Your task to perform on an android device: turn on showing notifications on the lock screen Image 0: 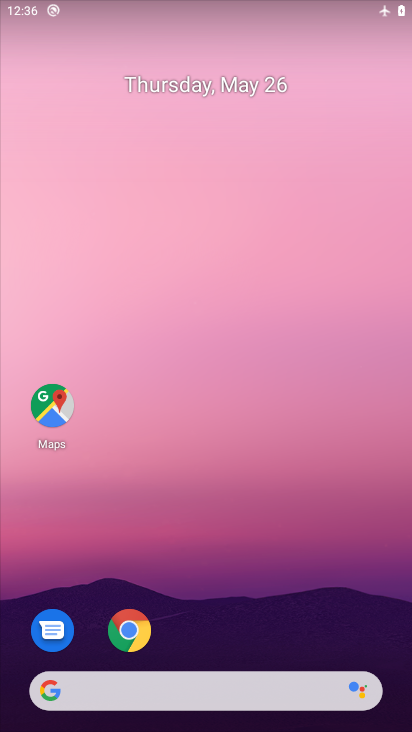
Step 0: press home button
Your task to perform on an android device: turn on showing notifications on the lock screen Image 1: 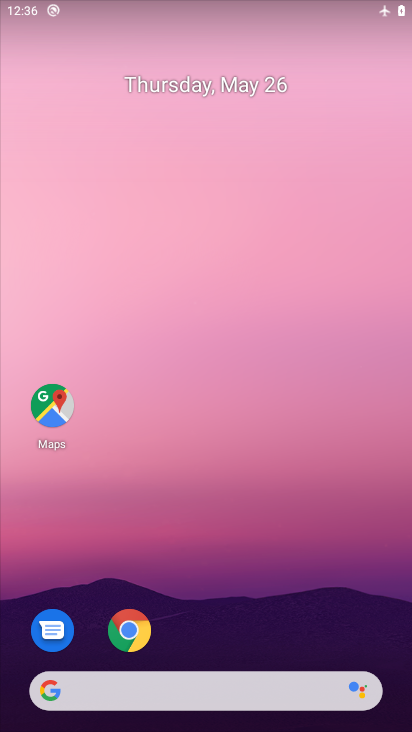
Step 1: drag from (214, 657) to (260, 19)
Your task to perform on an android device: turn on showing notifications on the lock screen Image 2: 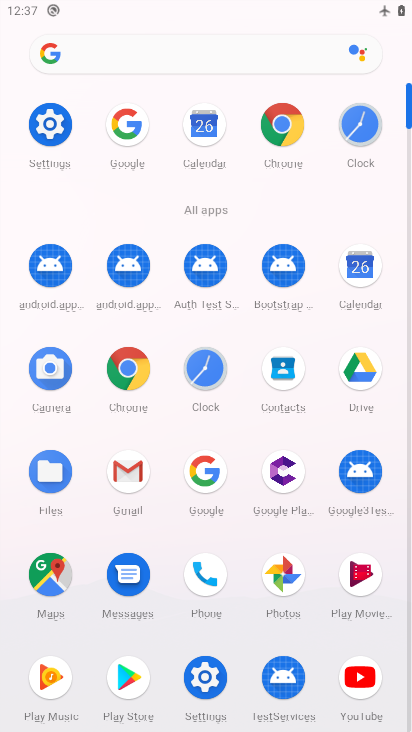
Step 2: click (48, 117)
Your task to perform on an android device: turn on showing notifications on the lock screen Image 3: 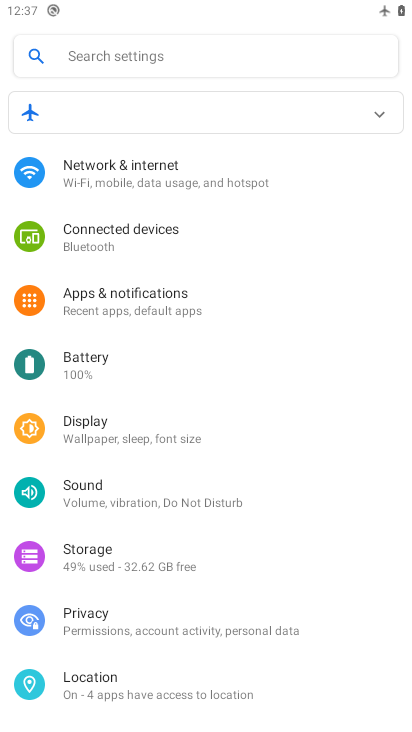
Step 3: click (210, 302)
Your task to perform on an android device: turn on showing notifications on the lock screen Image 4: 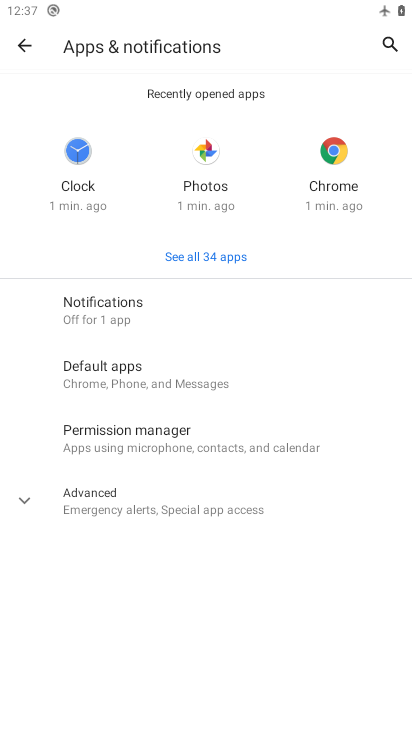
Step 4: click (162, 309)
Your task to perform on an android device: turn on showing notifications on the lock screen Image 5: 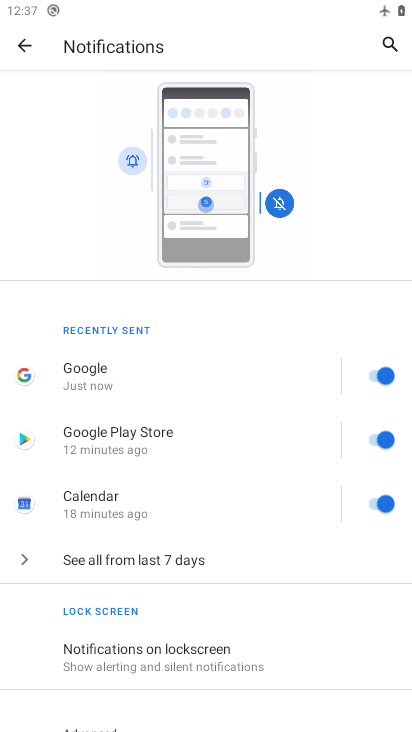
Step 5: click (198, 657)
Your task to perform on an android device: turn on showing notifications on the lock screen Image 6: 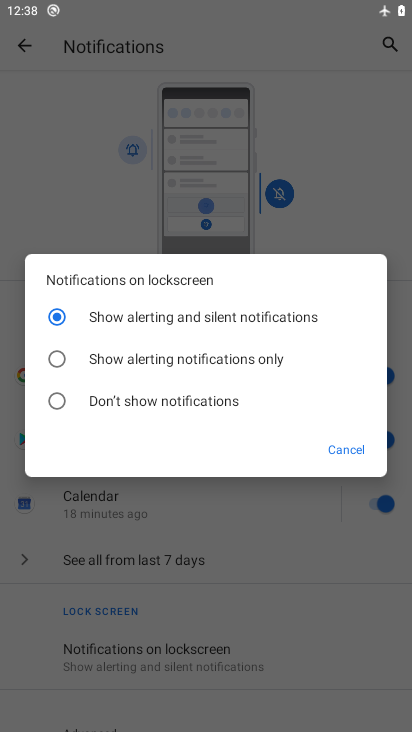
Step 6: click (56, 353)
Your task to perform on an android device: turn on showing notifications on the lock screen Image 7: 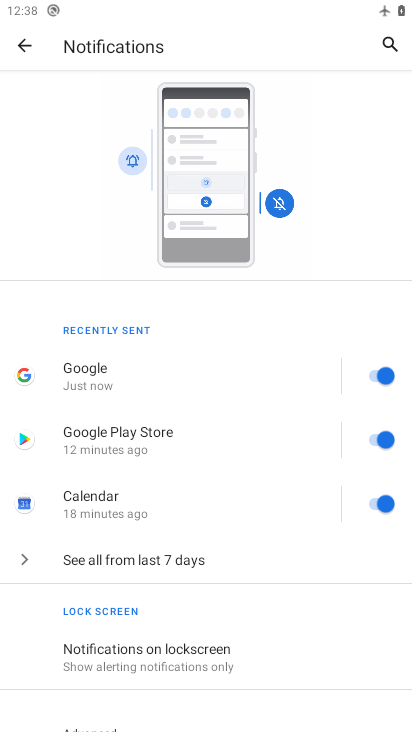
Step 7: click (249, 655)
Your task to perform on an android device: turn on showing notifications on the lock screen Image 8: 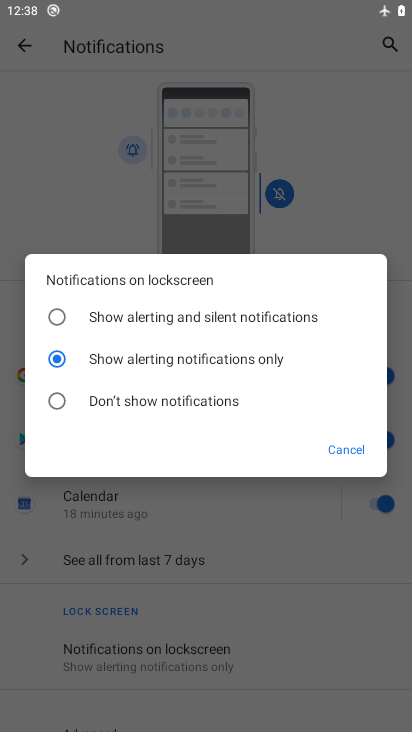
Step 8: click (93, 357)
Your task to perform on an android device: turn on showing notifications on the lock screen Image 9: 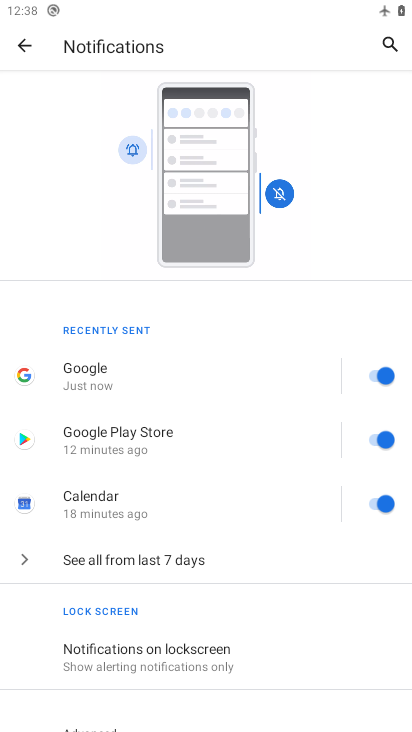
Step 9: task complete